Your task to perform on an android device: Go to Google maps Image 0: 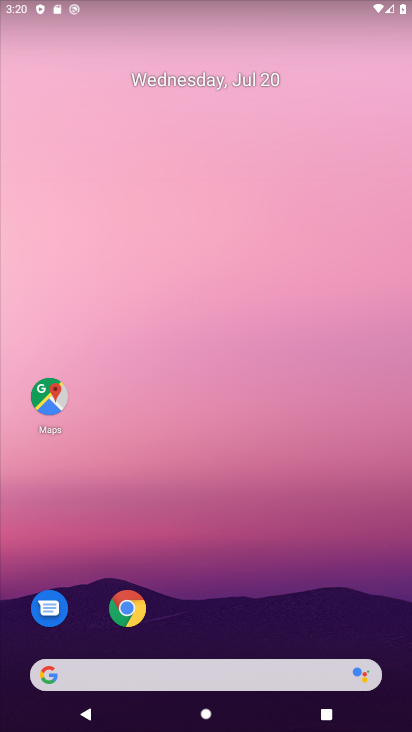
Step 0: drag from (236, 684) to (280, 175)
Your task to perform on an android device: Go to Google maps Image 1: 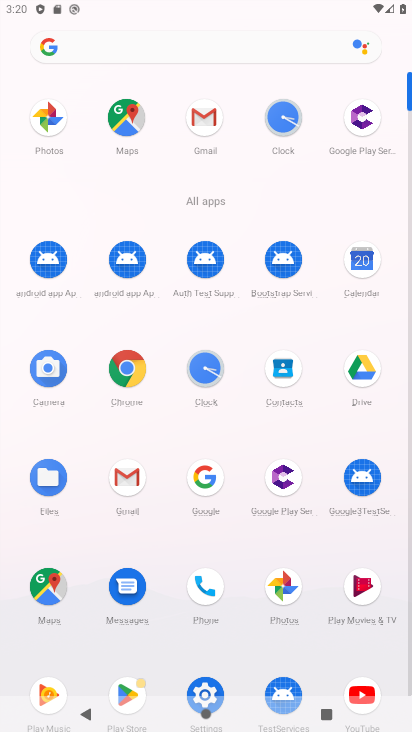
Step 1: click (43, 594)
Your task to perform on an android device: Go to Google maps Image 2: 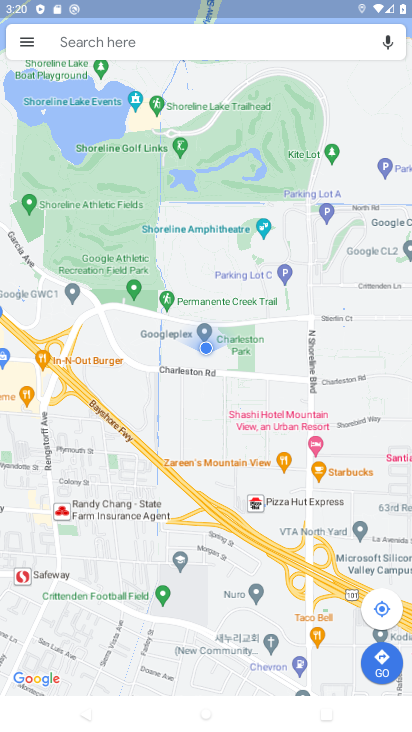
Step 2: task complete